Your task to perform on an android device: turn on javascript in the chrome app Image 0: 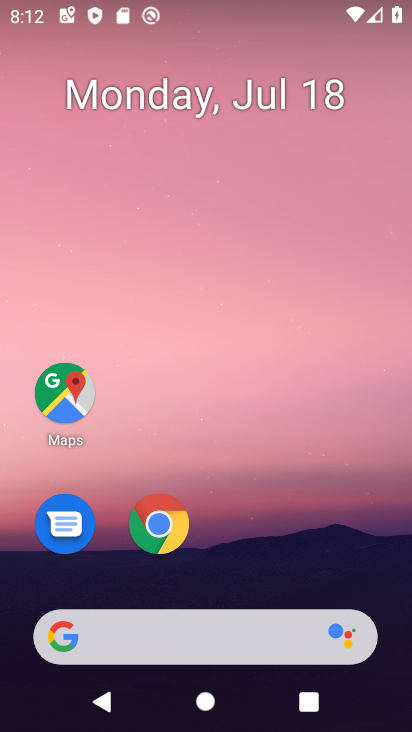
Step 0: click (166, 524)
Your task to perform on an android device: turn on javascript in the chrome app Image 1: 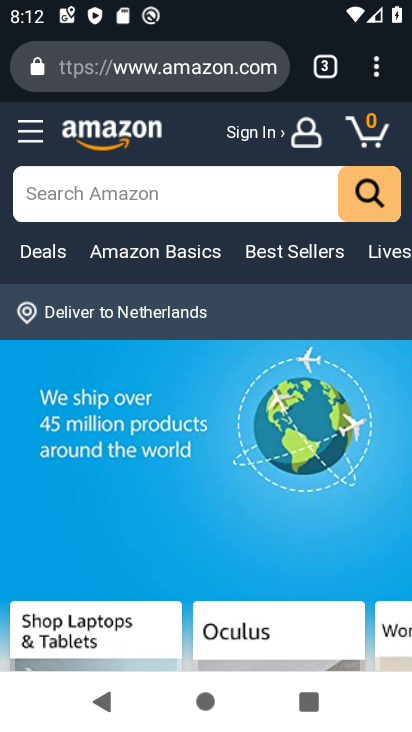
Step 1: click (377, 81)
Your task to perform on an android device: turn on javascript in the chrome app Image 2: 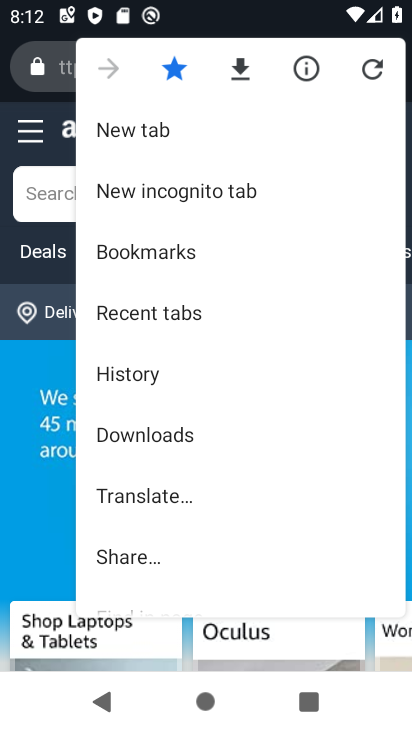
Step 2: drag from (231, 441) to (230, 201)
Your task to perform on an android device: turn on javascript in the chrome app Image 3: 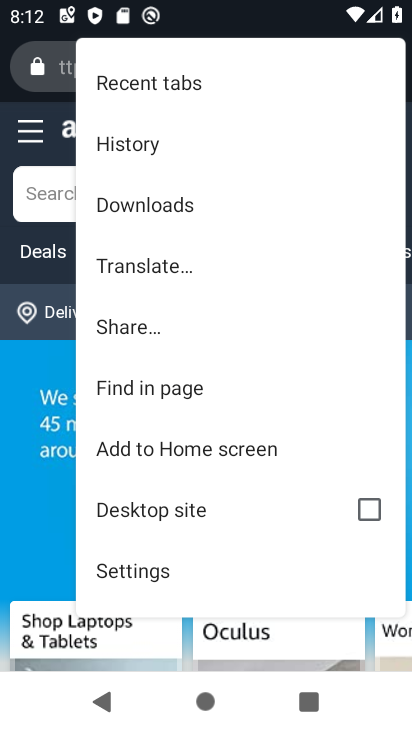
Step 3: click (150, 576)
Your task to perform on an android device: turn on javascript in the chrome app Image 4: 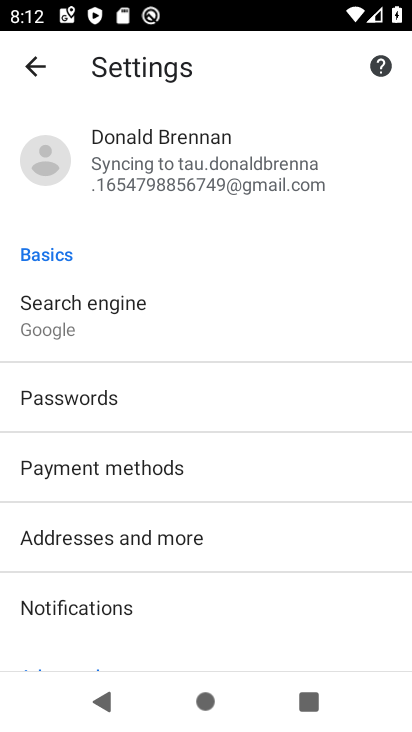
Step 4: drag from (236, 506) to (243, 251)
Your task to perform on an android device: turn on javascript in the chrome app Image 5: 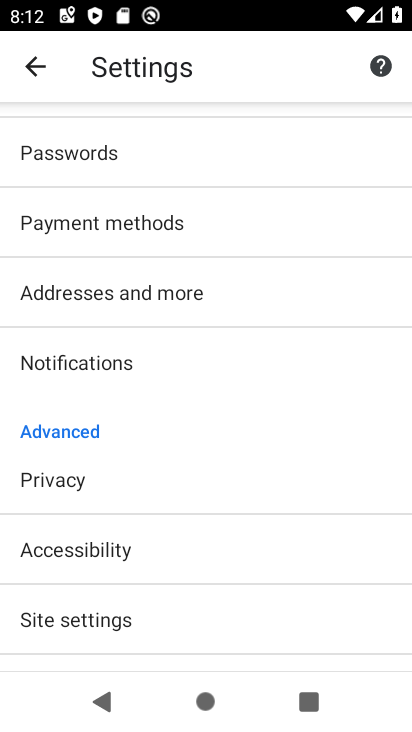
Step 5: click (111, 620)
Your task to perform on an android device: turn on javascript in the chrome app Image 6: 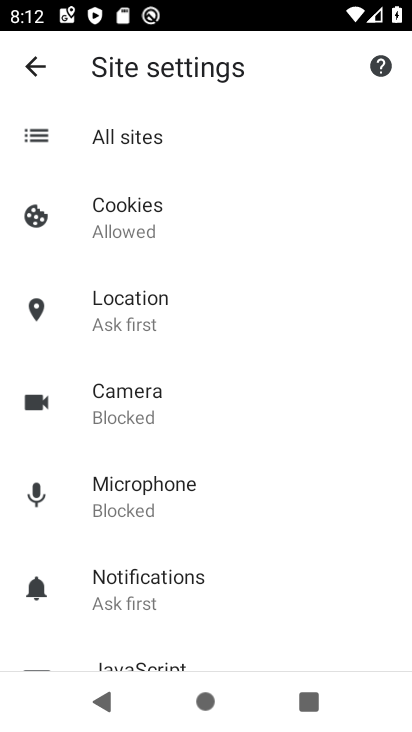
Step 6: drag from (246, 529) to (244, 379)
Your task to perform on an android device: turn on javascript in the chrome app Image 7: 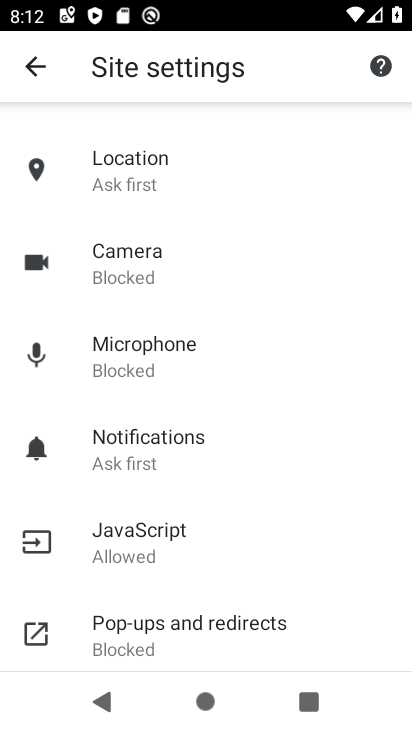
Step 7: click (173, 527)
Your task to perform on an android device: turn on javascript in the chrome app Image 8: 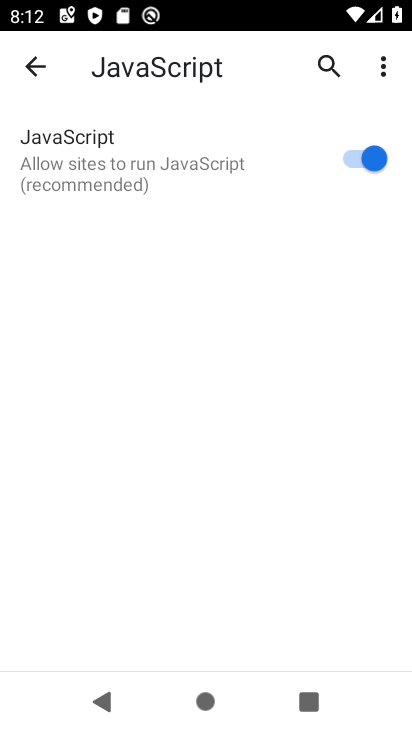
Step 8: task complete